Your task to perform on an android device: Open the stopwatch Image 0: 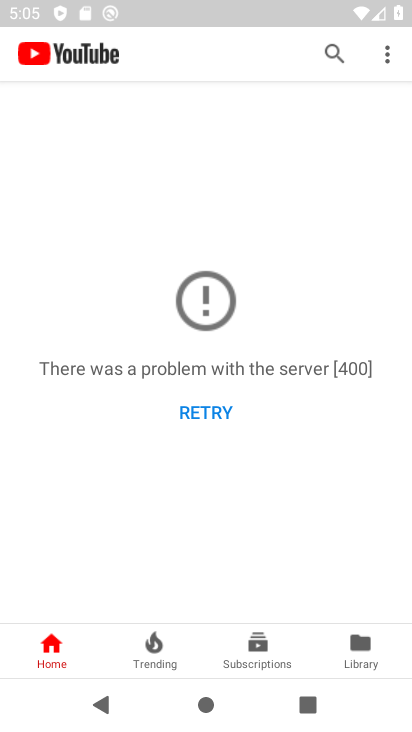
Step 0: press home button
Your task to perform on an android device: Open the stopwatch Image 1: 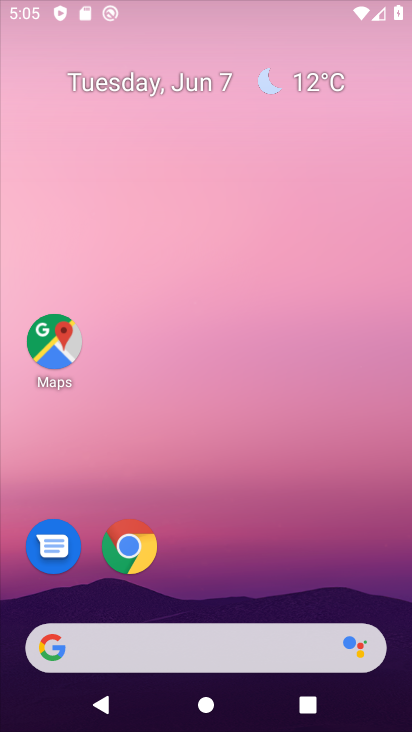
Step 1: drag from (292, 541) to (340, 42)
Your task to perform on an android device: Open the stopwatch Image 2: 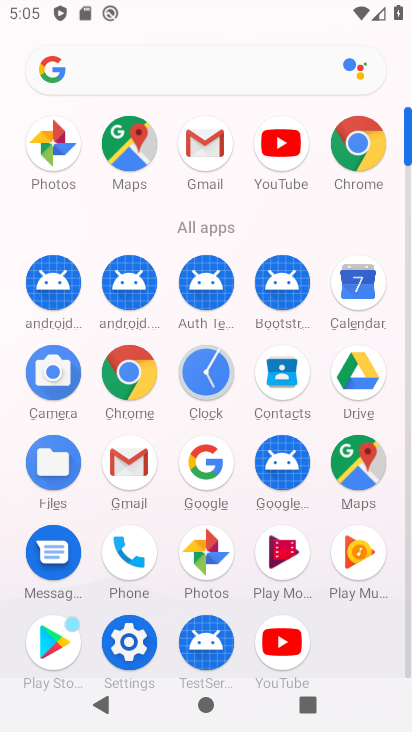
Step 2: click (194, 366)
Your task to perform on an android device: Open the stopwatch Image 3: 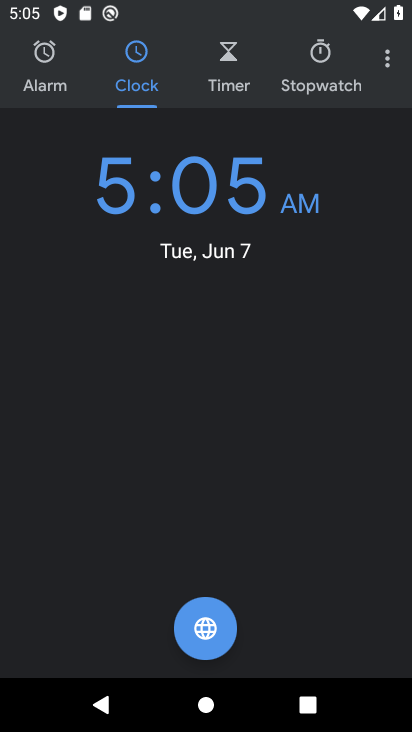
Step 3: click (320, 63)
Your task to perform on an android device: Open the stopwatch Image 4: 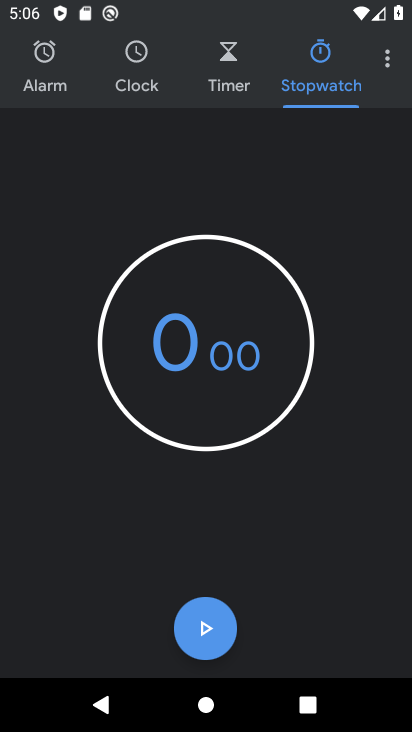
Step 4: task complete